Your task to perform on an android device: open app "Contacts" (install if not already installed) Image 0: 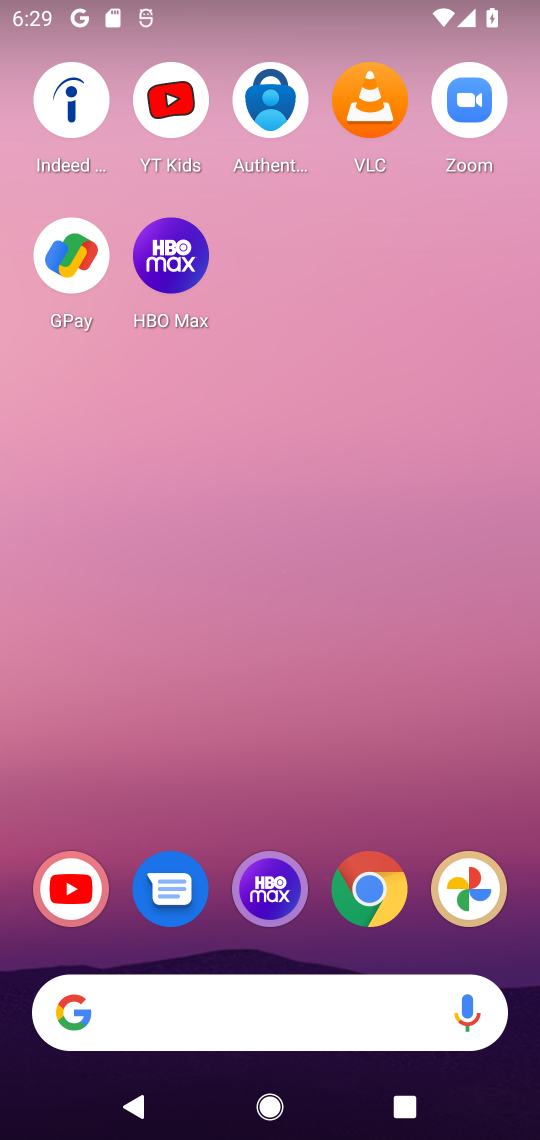
Step 0: press home button
Your task to perform on an android device: open app "Contacts" (install if not already installed) Image 1: 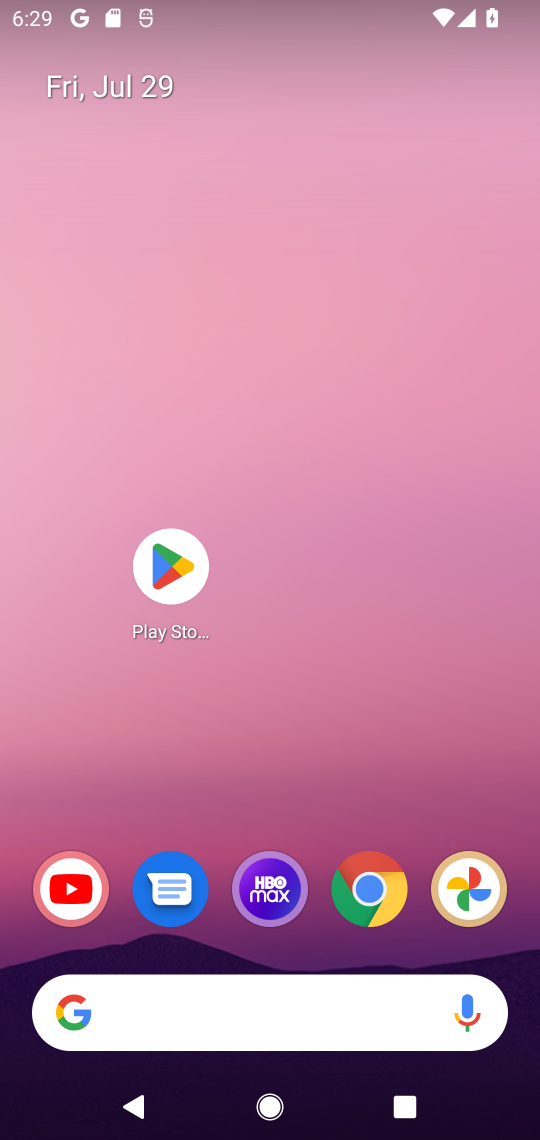
Step 1: click (170, 566)
Your task to perform on an android device: open app "Contacts" (install if not already installed) Image 2: 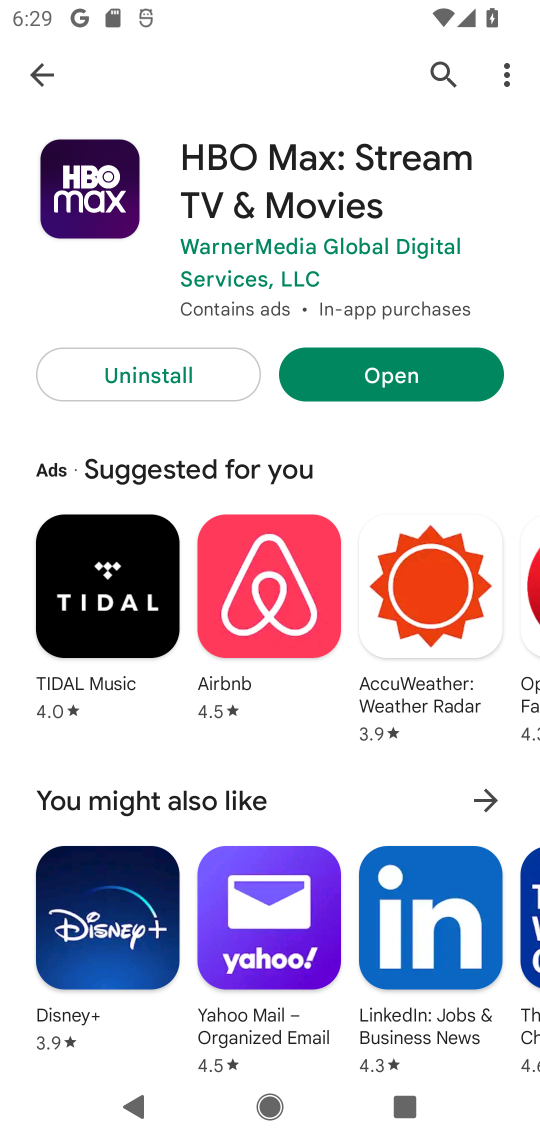
Step 2: click (441, 56)
Your task to perform on an android device: open app "Contacts" (install if not already installed) Image 3: 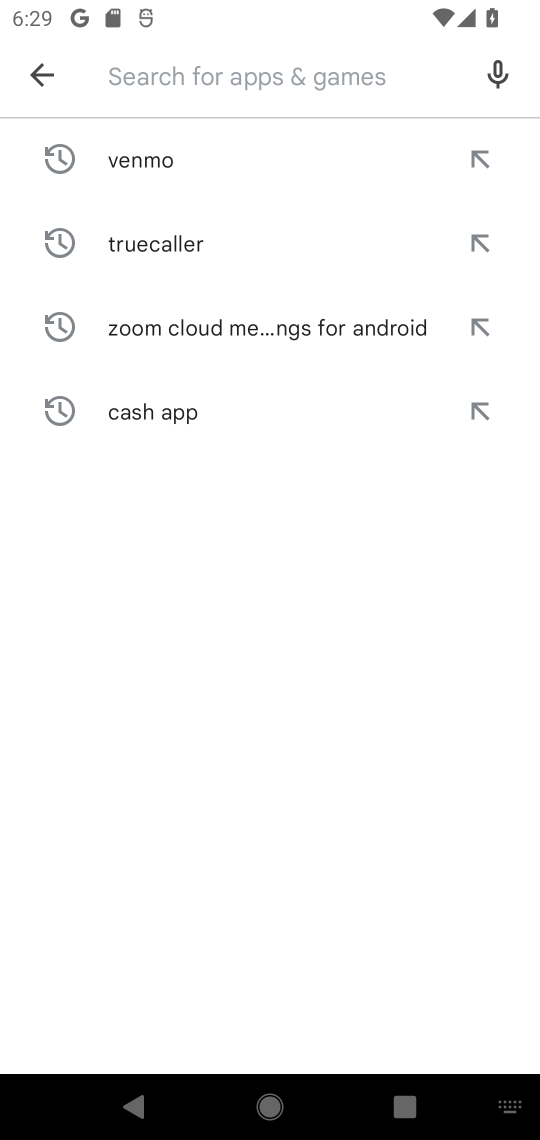
Step 3: type "Contacts"
Your task to perform on an android device: open app "Contacts" (install if not already installed) Image 4: 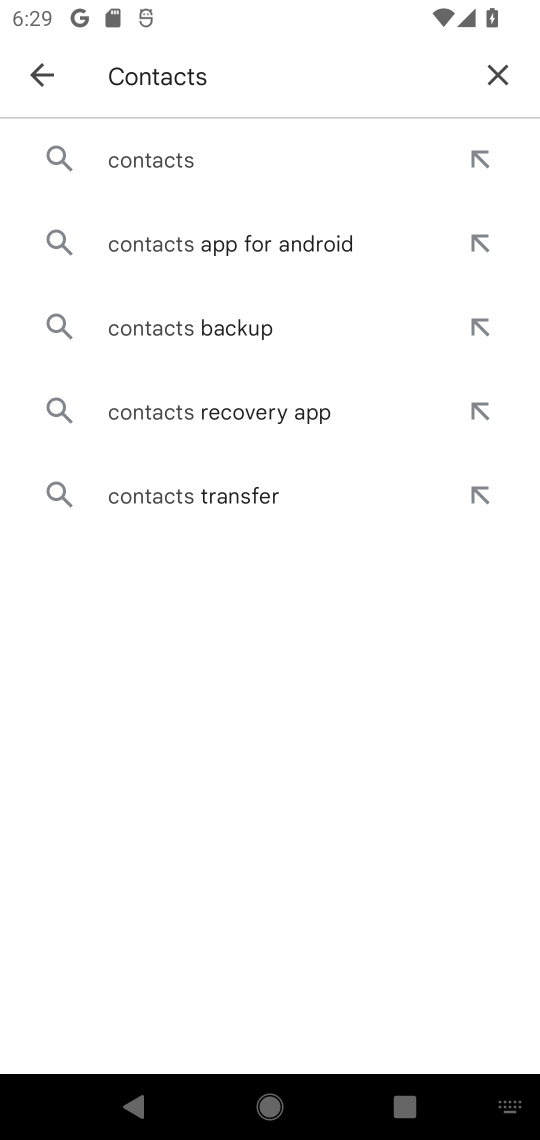
Step 4: click (159, 158)
Your task to perform on an android device: open app "Contacts" (install if not already installed) Image 5: 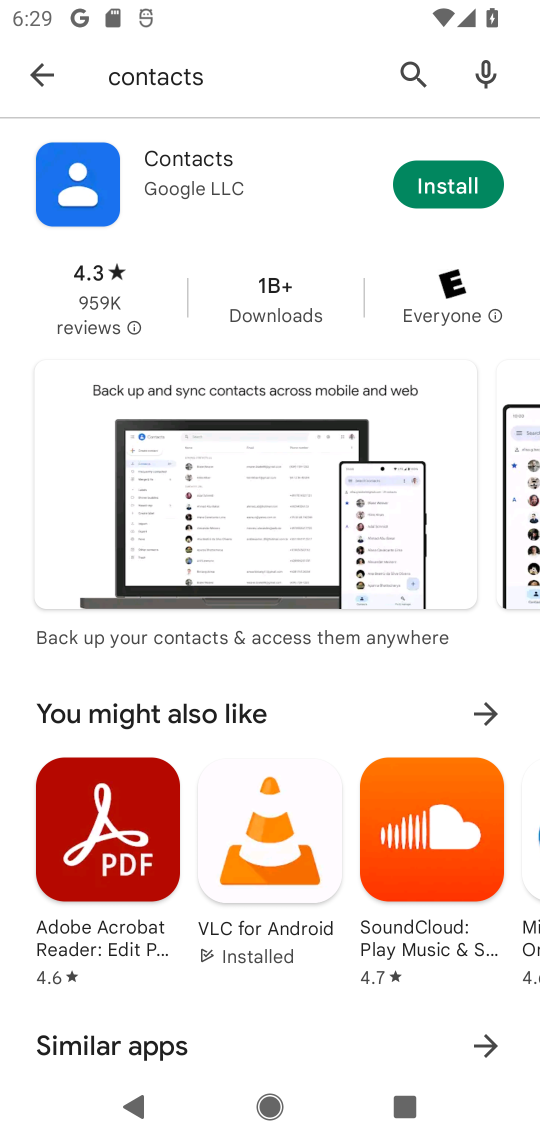
Step 5: click (463, 176)
Your task to perform on an android device: open app "Contacts" (install if not already installed) Image 6: 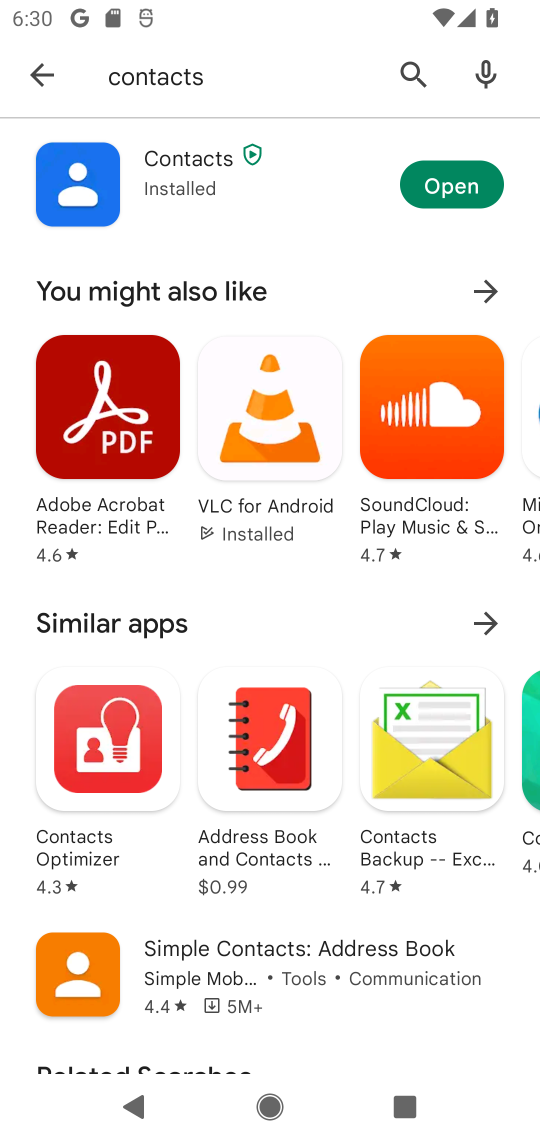
Step 6: click (449, 185)
Your task to perform on an android device: open app "Contacts" (install if not already installed) Image 7: 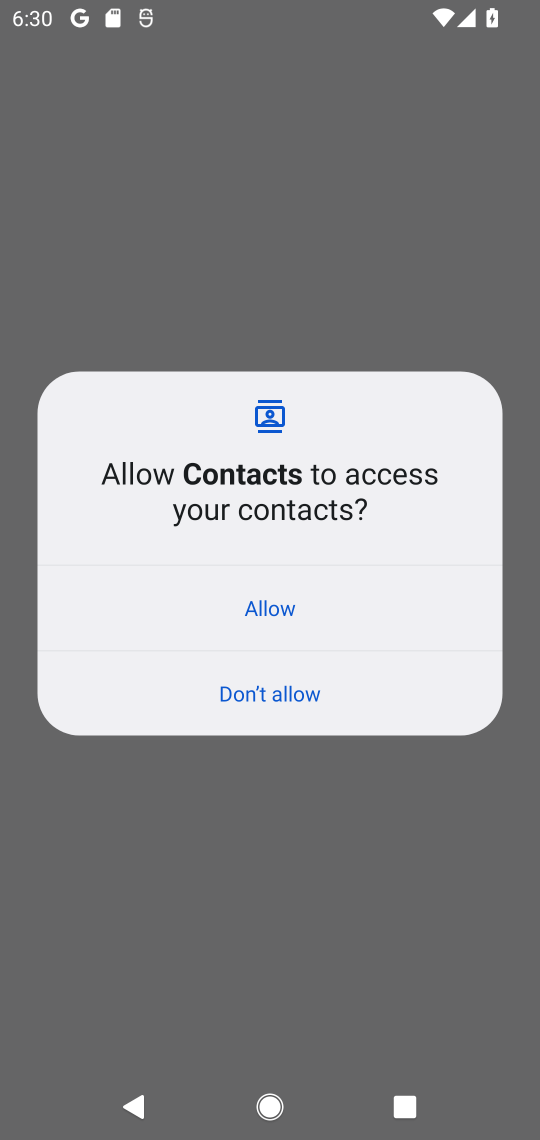
Step 7: task complete